Your task to perform on an android device: snooze an email in the gmail app Image 0: 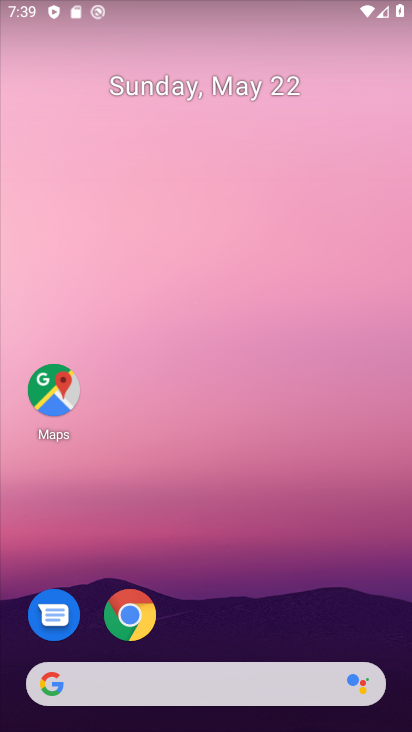
Step 0: drag from (287, 640) to (185, 96)
Your task to perform on an android device: snooze an email in the gmail app Image 1: 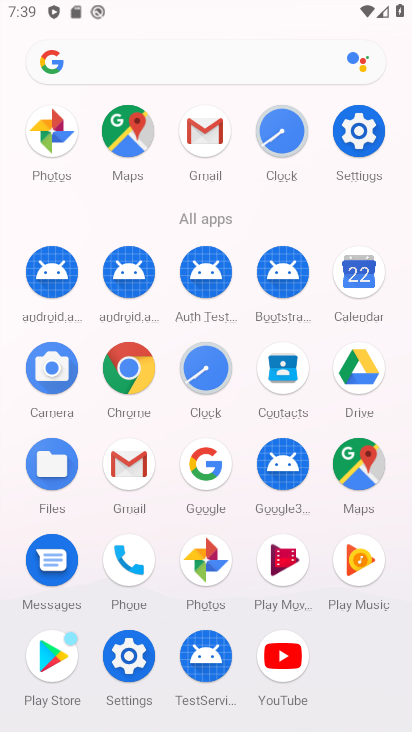
Step 1: click (131, 482)
Your task to perform on an android device: snooze an email in the gmail app Image 2: 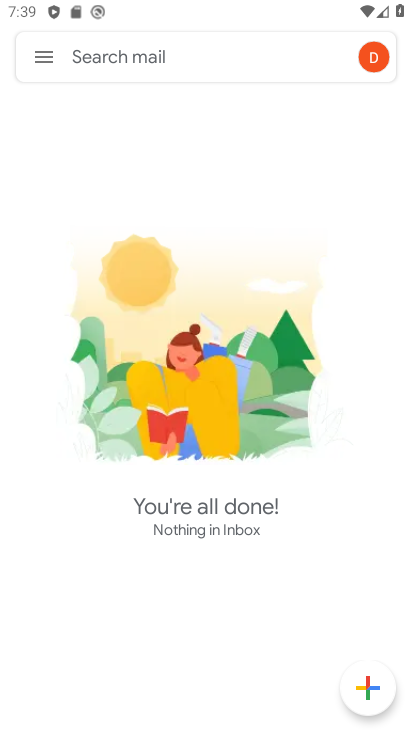
Step 2: click (42, 49)
Your task to perform on an android device: snooze an email in the gmail app Image 3: 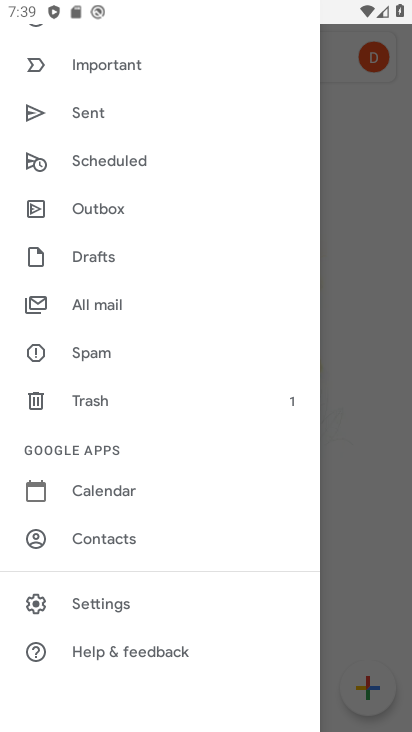
Step 3: click (73, 289)
Your task to perform on an android device: snooze an email in the gmail app Image 4: 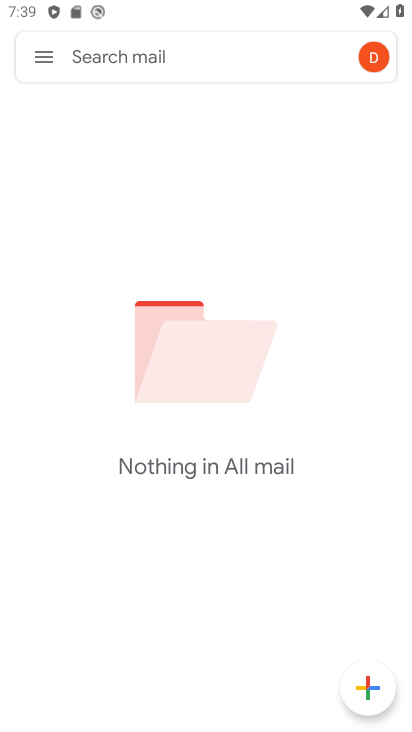
Step 4: task complete